Your task to perform on an android device: Check the weather Image 0: 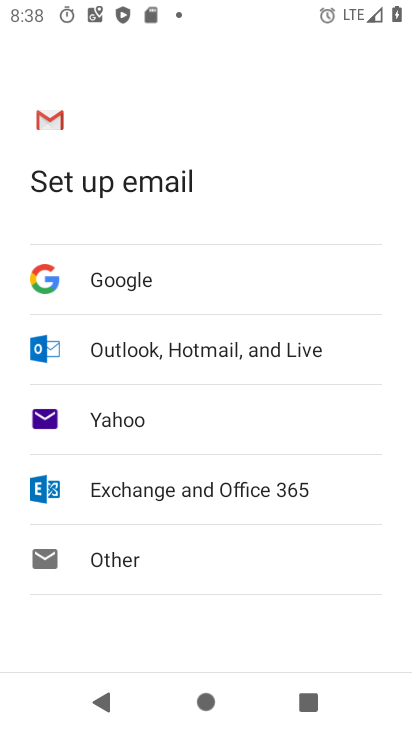
Step 0: press home button
Your task to perform on an android device: Check the weather Image 1: 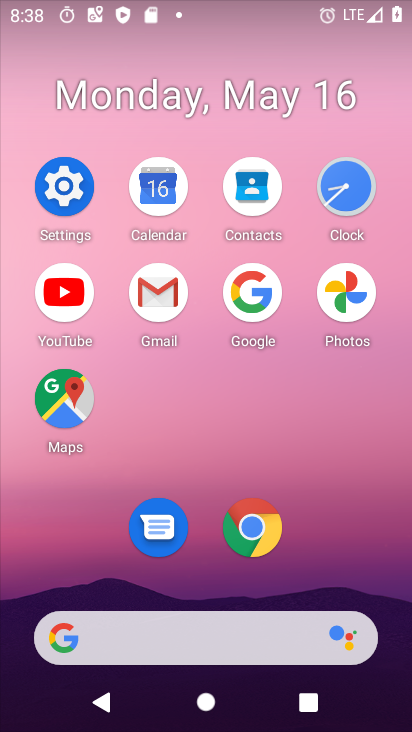
Step 1: click (269, 296)
Your task to perform on an android device: Check the weather Image 2: 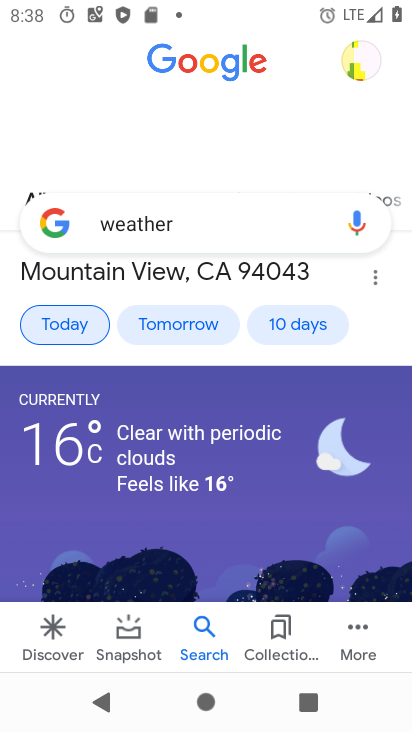
Step 2: task complete